Your task to perform on an android device: How much does a 2 bedroom apartment rent for in Seattle? Image 0: 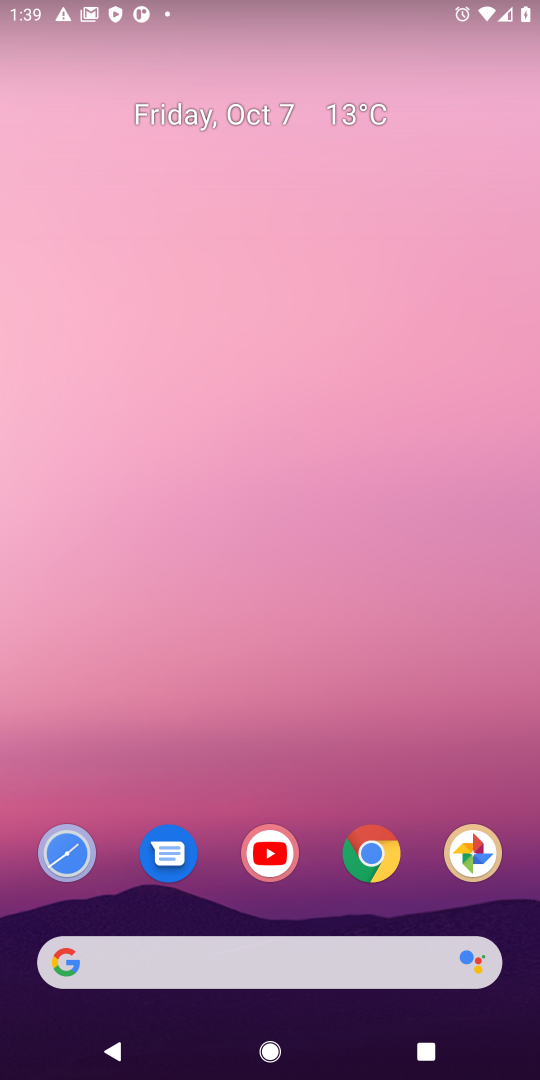
Step 0: click (260, 971)
Your task to perform on an android device: How much does a 2 bedroom apartment rent for in Seattle? Image 1: 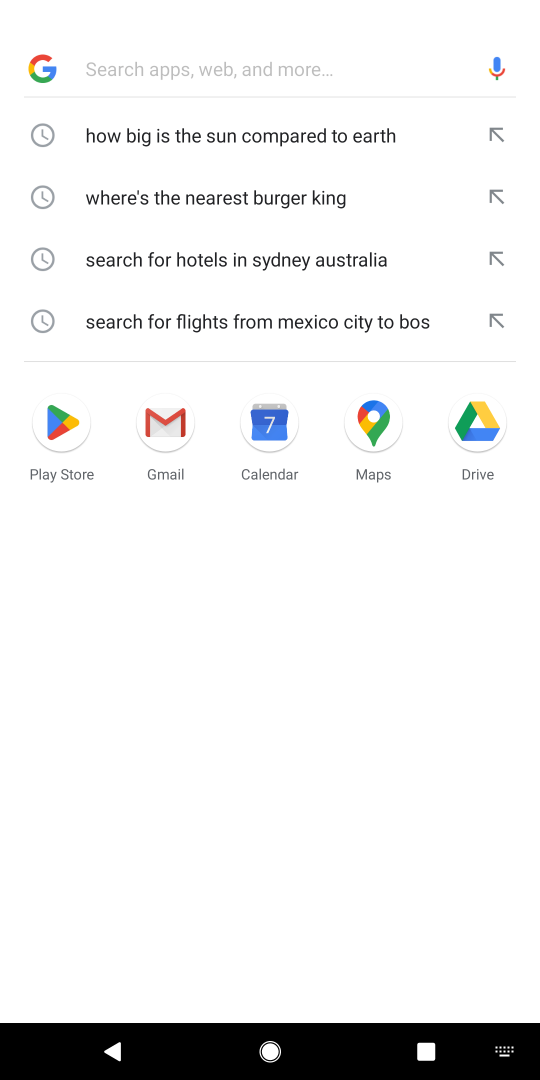
Step 1: type "How big is the sun?"
Your task to perform on an android device: How much does a 2 bedroom apartment rent for in Seattle? Image 2: 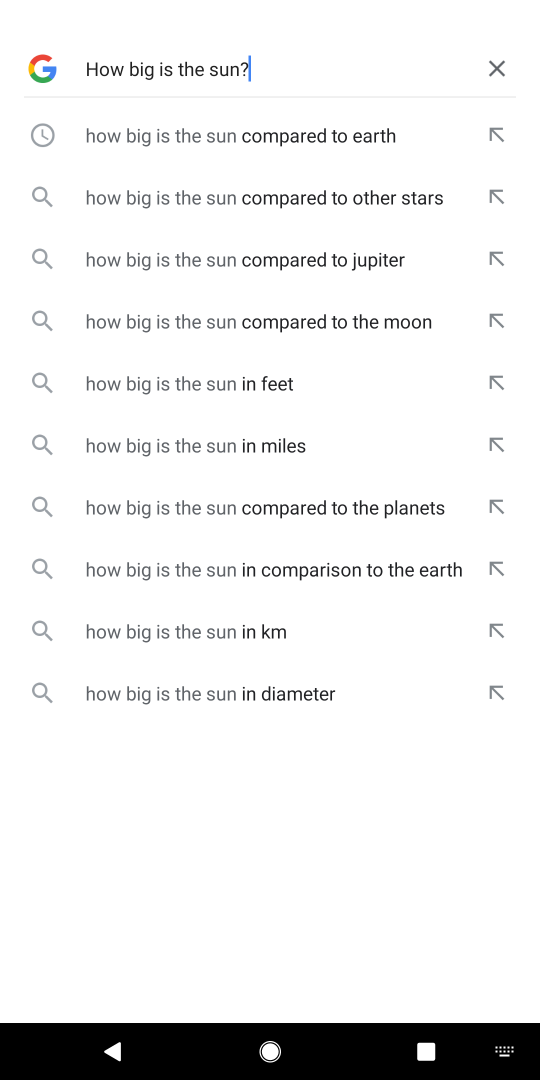
Step 2: click (509, 74)
Your task to perform on an android device: How much does a 2 bedroom apartment rent for in Seattle? Image 3: 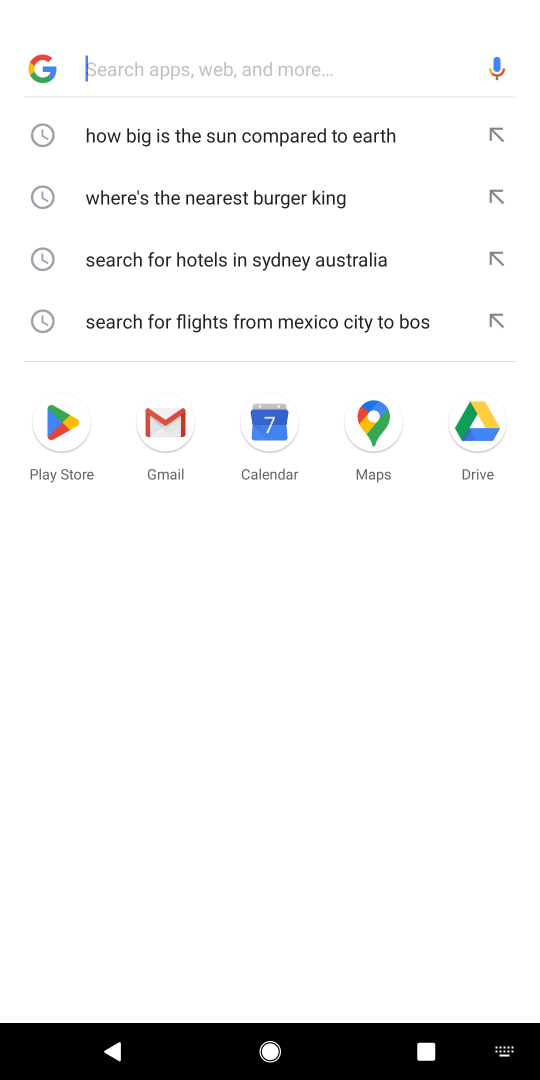
Step 3: type "How big is the sun?"
Your task to perform on an android device: How much does a 2 bedroom apartment rent for in Seattle? Image 4: 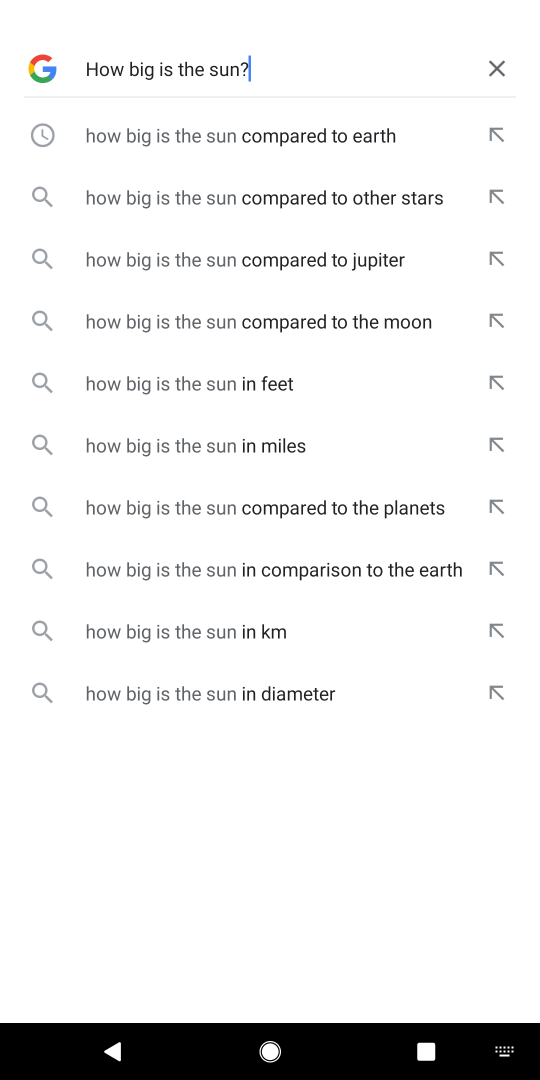
Step 4: click (495, 70)
Your task to perform on an android device: How much does a 2 bedroom apartment rent for in Seattle? Image 5: 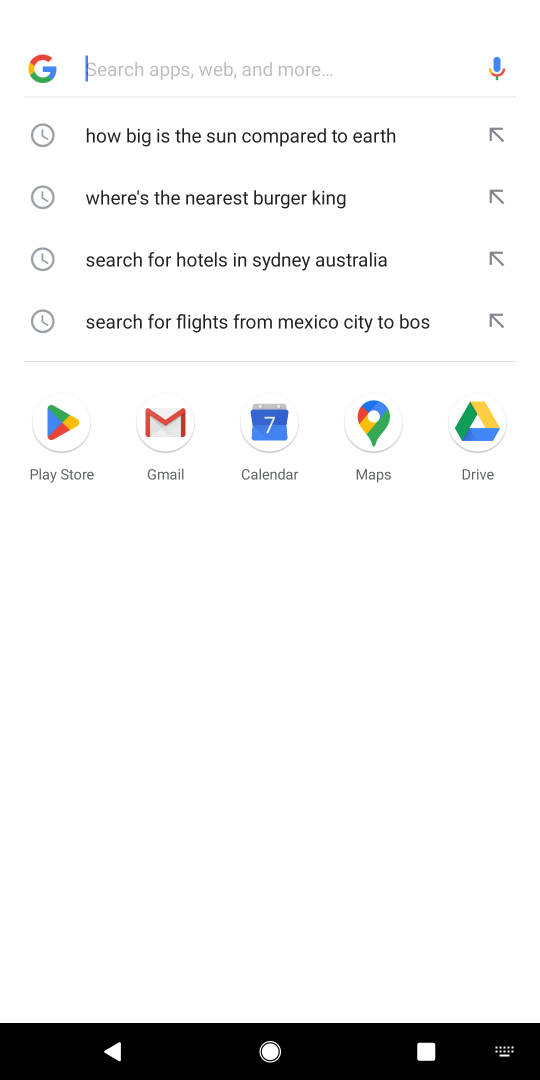
Step 5: click (284, 54)
Your task to perform on an android device: How much does a 2 bedroom apartment rent for in Seattle? Image 6: 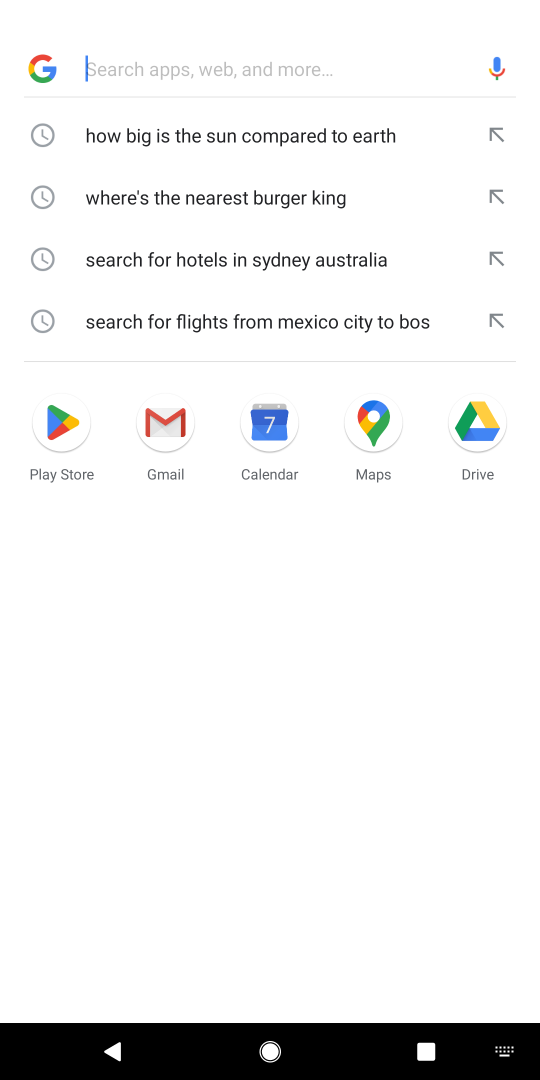
Step 6: type "How much does a 2 bedroom apartment rent for in Seattle?"
Your task to perform on an android device: How much does a 2 bedroom apartment rent for in Seattle? Image 7: 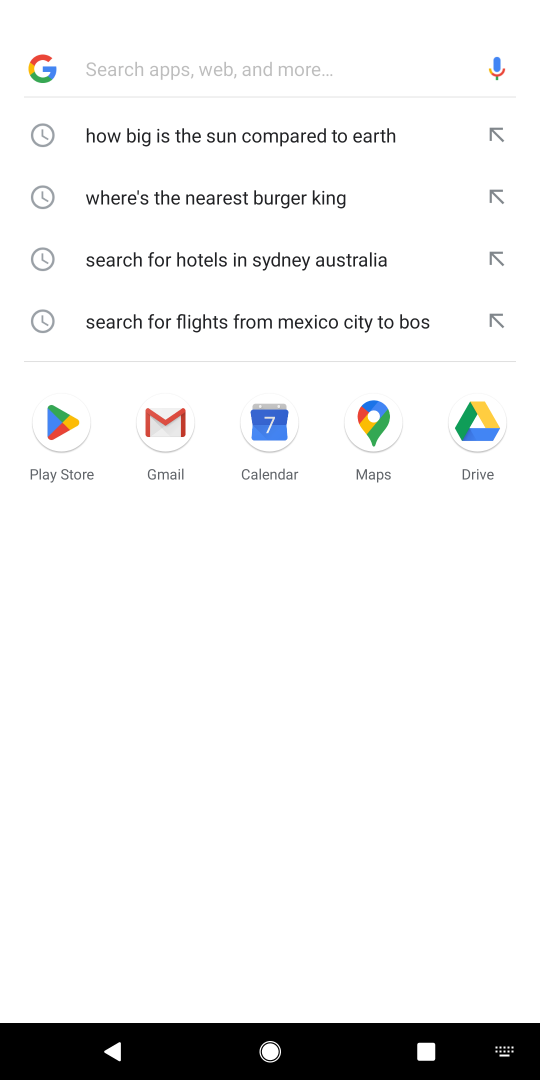
Step 7: click (357, 82)
Your task to perform on an android device: How much does a 2 bedroom apartment rent for in Seattle? Image 8: 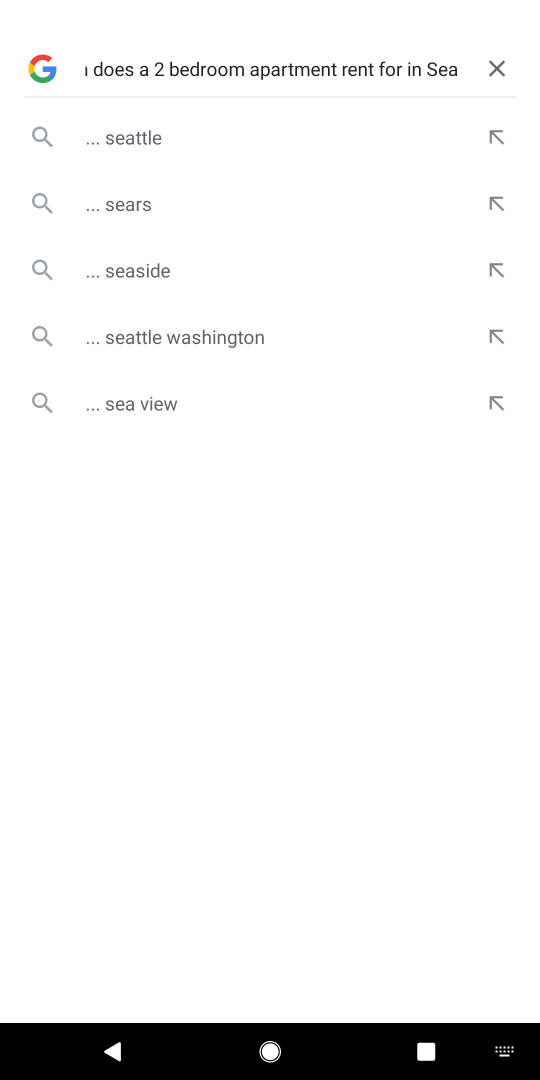
Step 8: click (357, 82)
Your task to perform on an android device: How much does a 2 bedroom apartment rent for in Seattle? Image 9: 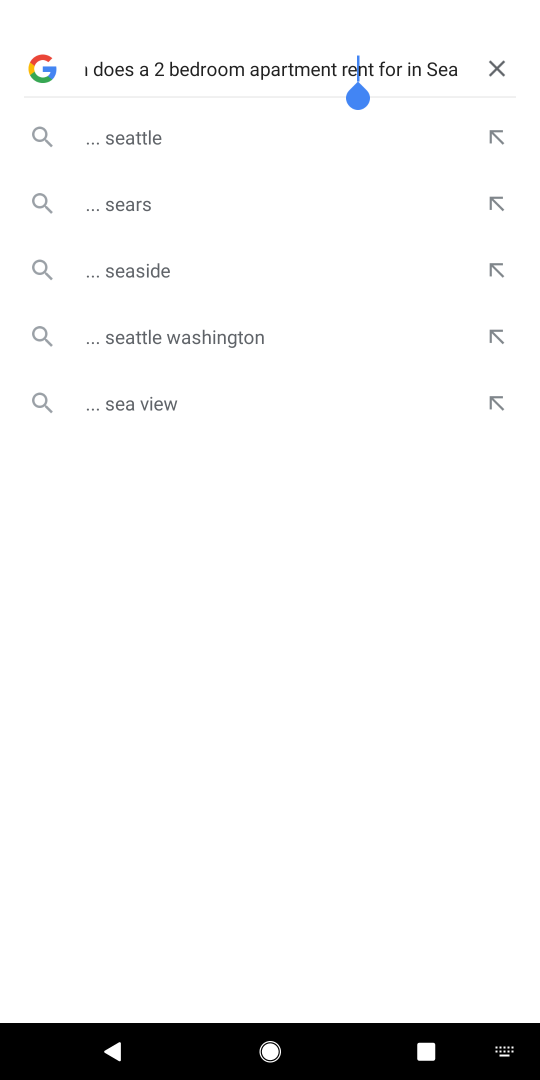
Step 9: click (357, 82)
Your task to perform on an android device: How much does a 2 bedroom apartment rent for in Seattle? Image 10: 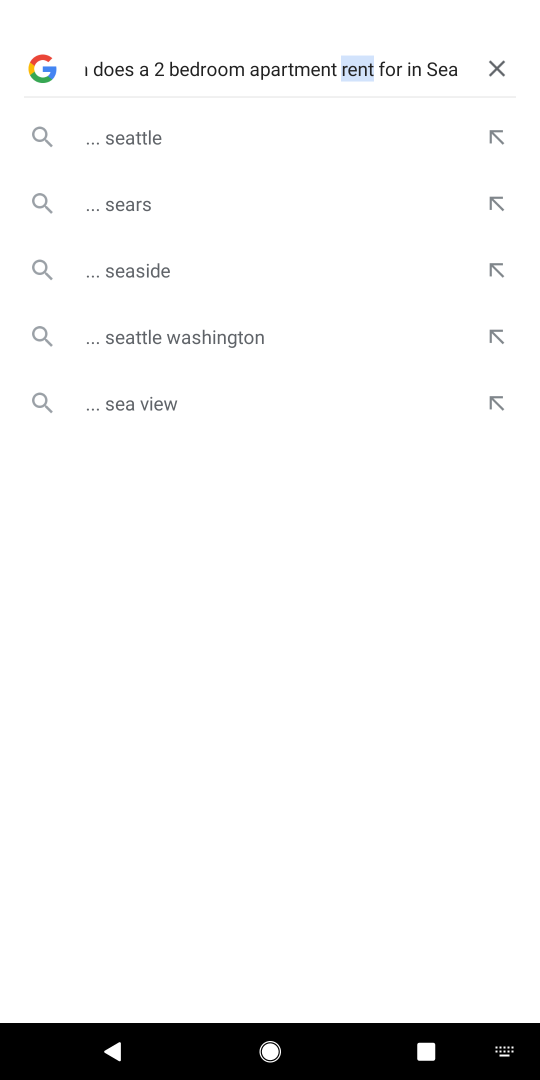
Step 10: click (357, 82)
Your task to perform on an android device: How much does a 2 bedroom apartment rent for in Seattle? Image 11: 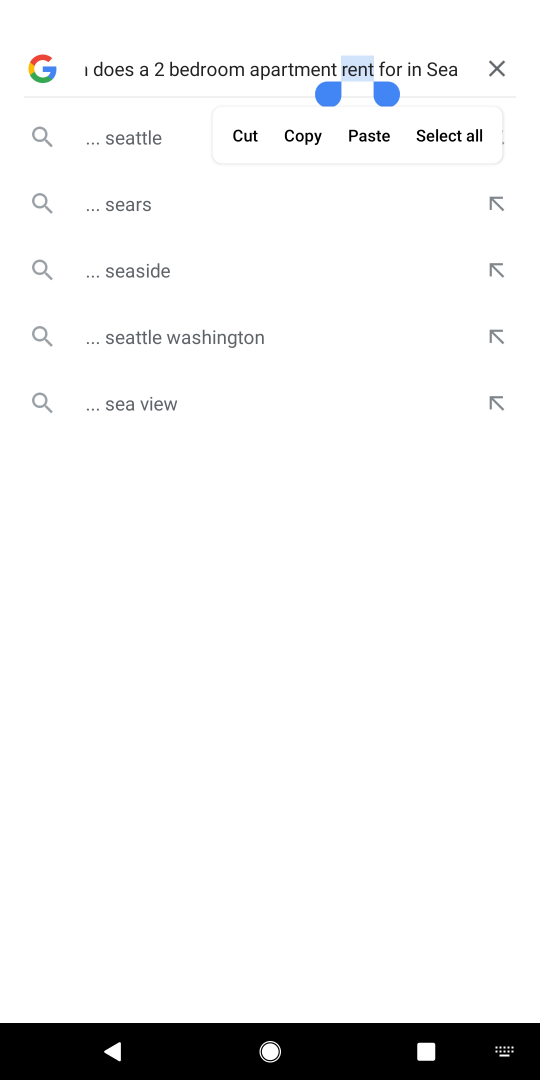
Step 11: click (250, 125)
Your task to perform on an android device: How much does a 2 bedroom apartment rent for in Seattle? Image 12: 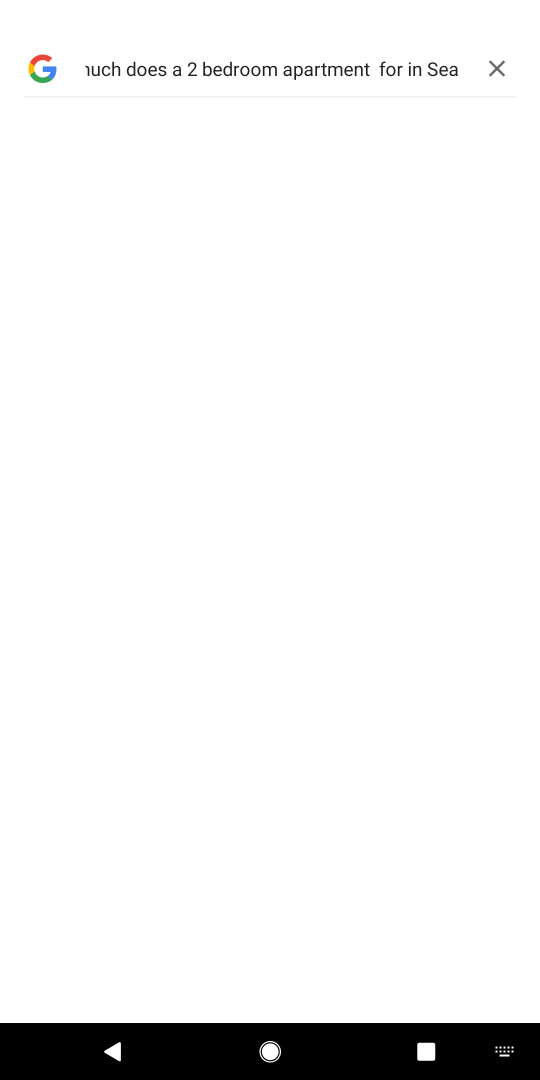
Step 12: click (134, 135)
Your task to perform on an android device: How much does a 2 bedroom apartment rent for in Seattle? Image 13: 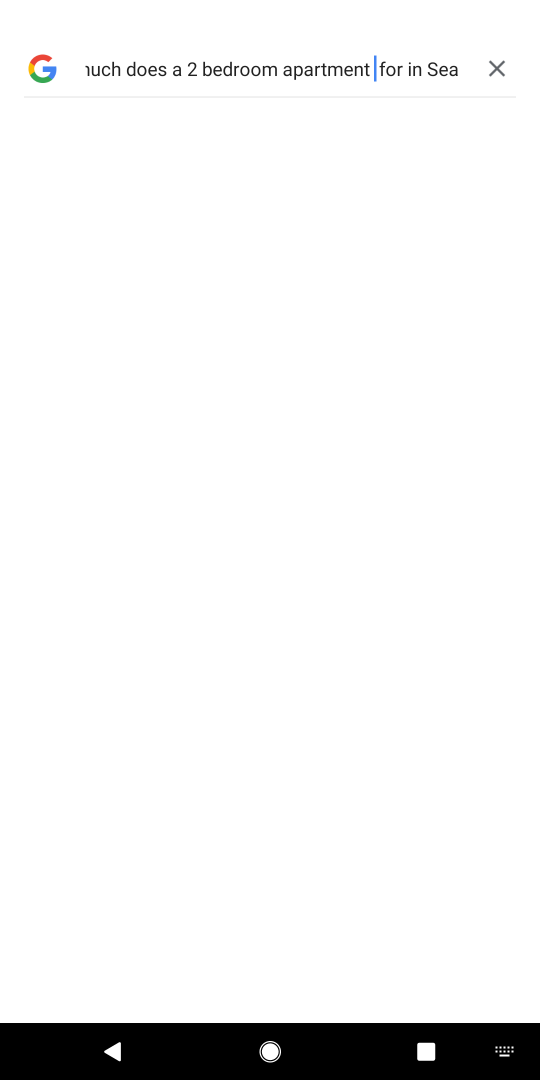
Step 13: task complete